Your task to perform on an android device: Turn on the flashlight Image 0: 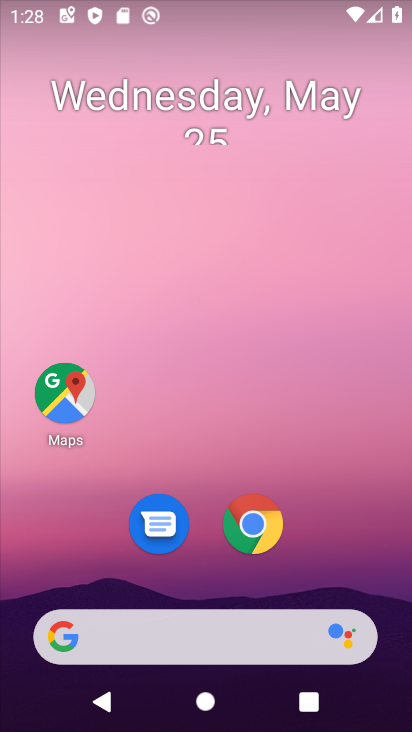
Step 0: drag from (224, 488) to (224, 8)
Your task to perform on an android device: Turn on the flashlight Image 1: 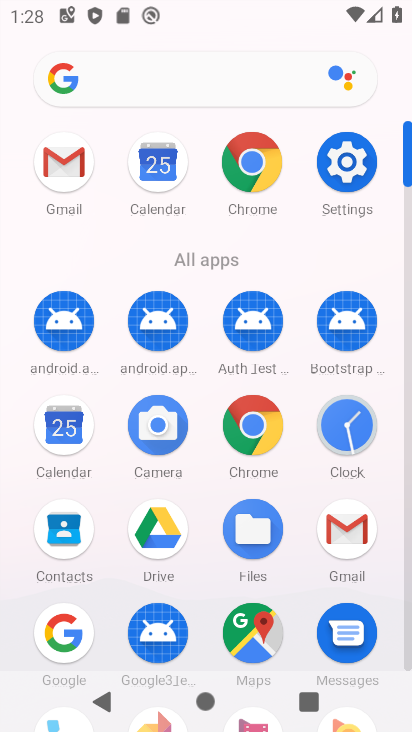
Step 1: click (335, 162)
Your task to perform on an android device: Turn on the flashlight Image 2: 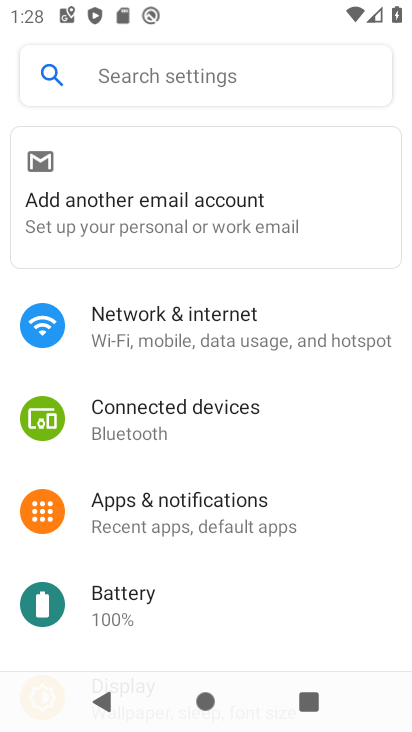
Step 2: click (237, 71)
Your task to perform on an android device: Turn on the flashlight Image 3: 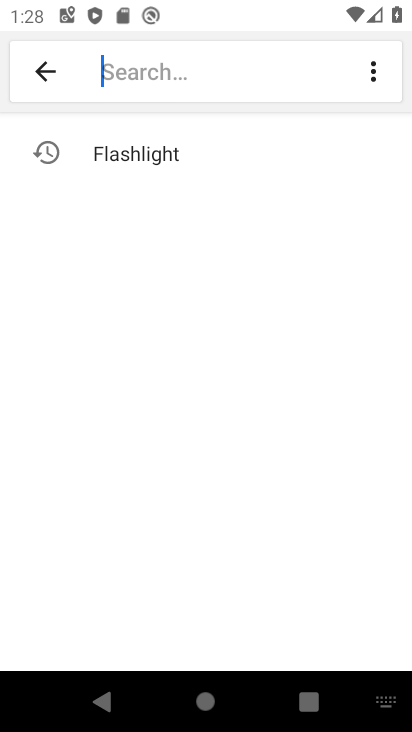
Step 3: click (160, 142)
Your task to perform on an android device: Turn on the flashlight Image 4: 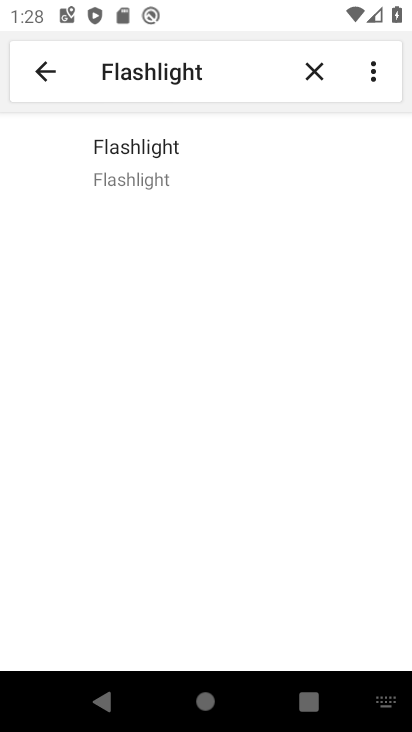
Step 4: click (160, 140)
Your task to perform on an android device: Turn on the flashlight Image 5: 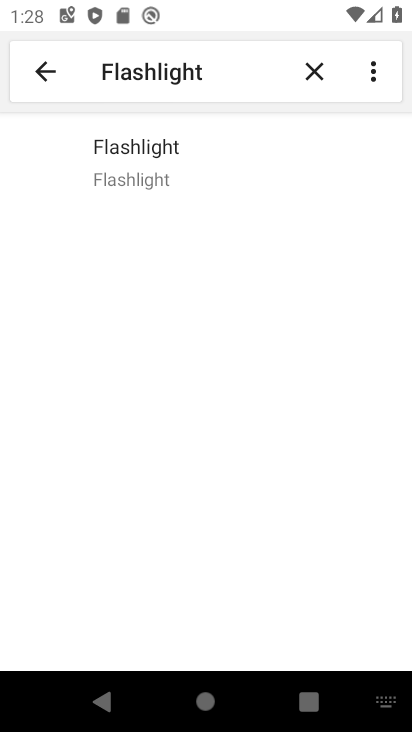
Step 5: task complete